Your task to perform on an android device: uninstall "Fetch Rewards" Image 0: 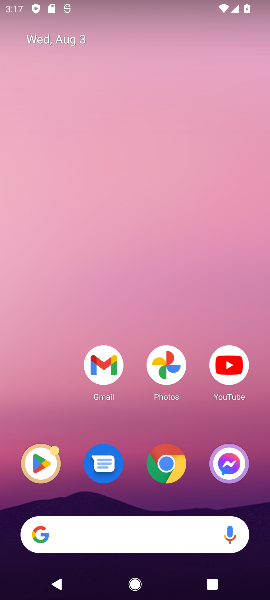
Step 0: drag from (192, 594) to (151, 109)
Your task to perform on an android device: uninstall "Fetch Rewards" Image 1: 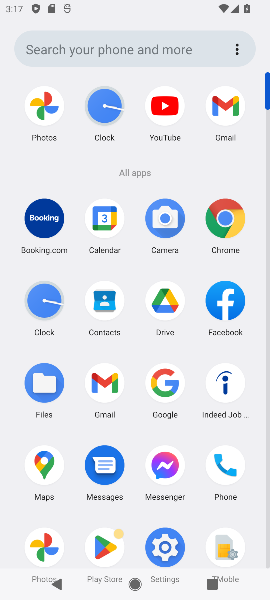
Step 1: click (105, 535)
Your task to perform on an android device: uninstall "Fetch Rewards" Image 2: 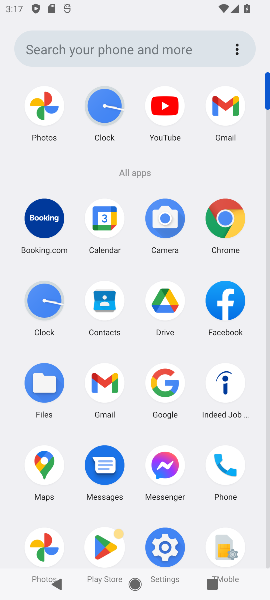
Step 2: click (105, 535)
Your task to perform on an android device: uninstall "Fetch Rewards" Image 3: 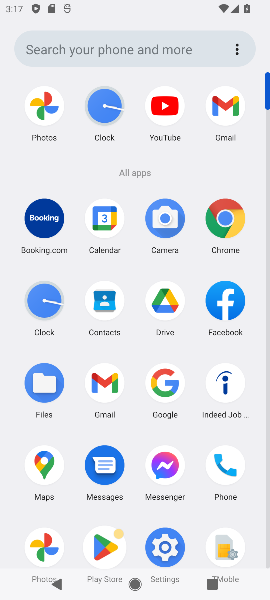
Step 3: click (105, 535)
Your task to perform on an android device: uninstall "Fetch Rewards" Image 4: 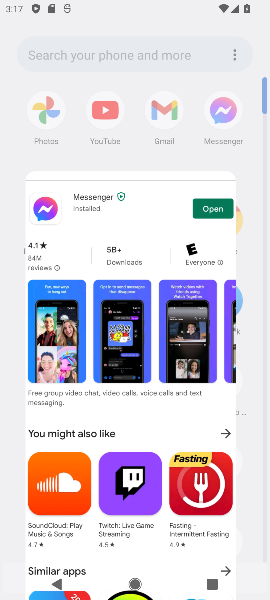
Step 4: click (105, 535)
Your task to perform on an android device: uninstall "Fetch Rewards" Image 5: 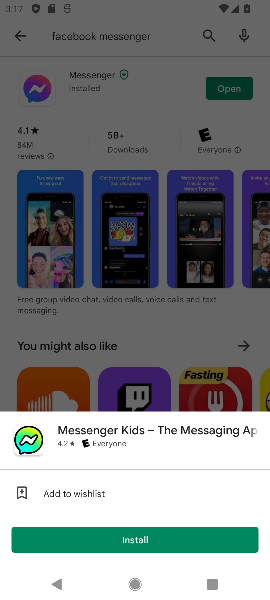
Step 5: click (206, 34)
Your task to perform on an android device: uninstall "Fetch Rewards" Image 6: 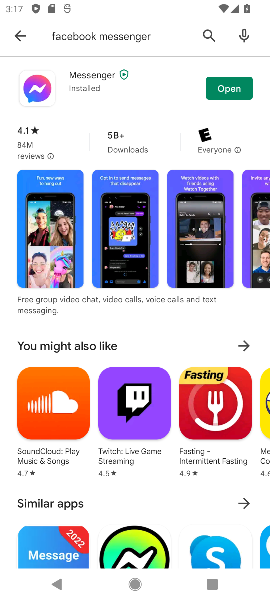
Step 6: click (210, 28)
Your task to perform on an android device: uninstall "Fetch Rewards" Image 7: 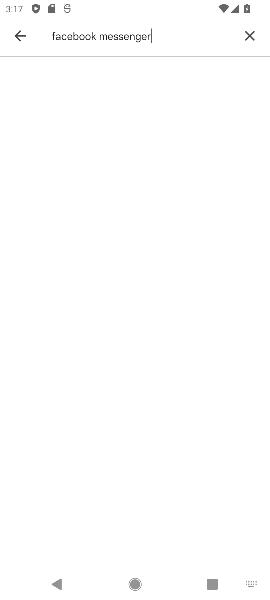
Step 7: click (201, 36)
Your task to perform on an android device: uninstall "Fetch Rewards" Image 8: 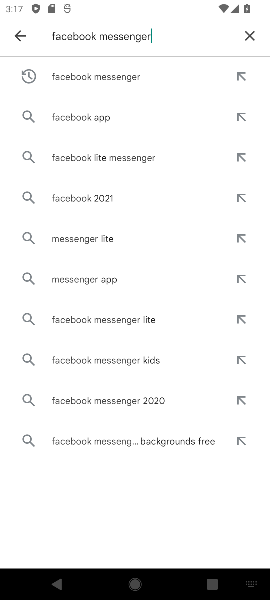
Step 8: click (201, 36)
Your task to perform on an android device: uninstall "Fetch Rewards" Image 9: 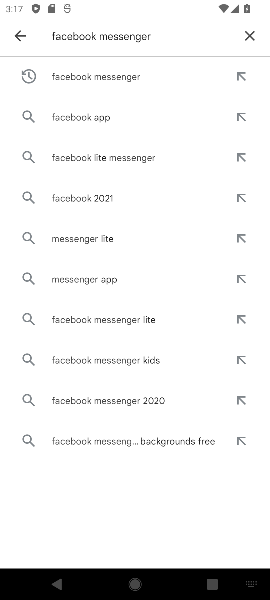
Step 9: click (201, 36)
Your task to perform on an android device: uninstall "Fetch Rewards" Image 10: 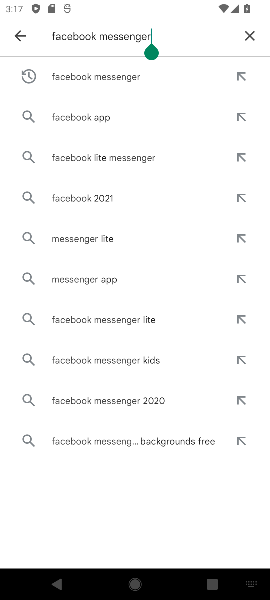
Step 10: click (241, 38)
Your task to perform on an android device: uninstall "Fetch Rewards" Image 11: 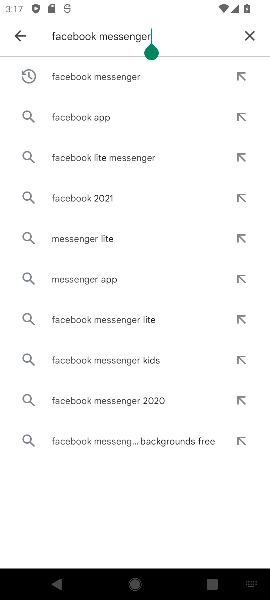
Step 11: click (241, 38)
Your task to perform on an android device: uninstall "Fetch Rewards" Image 12: 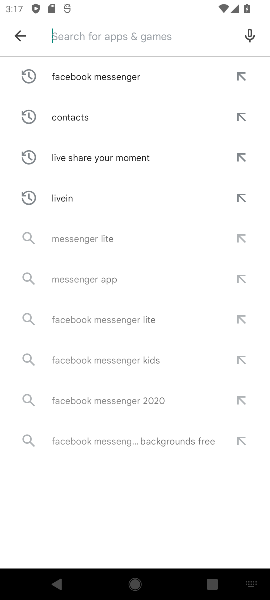
Step 12: click (241, 38)
Your task to perform on an android device: uninstall "Fetch Rewards" Image 13: 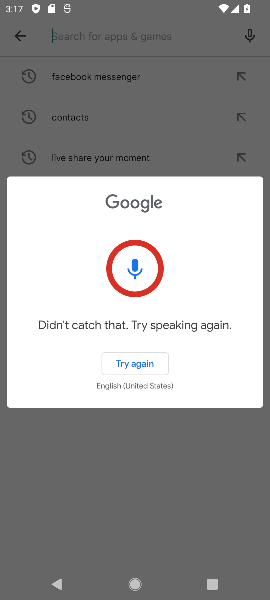
Step 13: type "fetch rewards"
Your task to perform on an android device: uninstall "Fetch Rewards" Image 14: 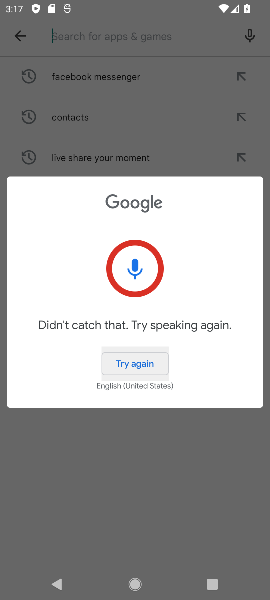
Step 14: click (186, 141)
Your task to perform on an android device: uninstall "Fetch Rewards" Image 15: 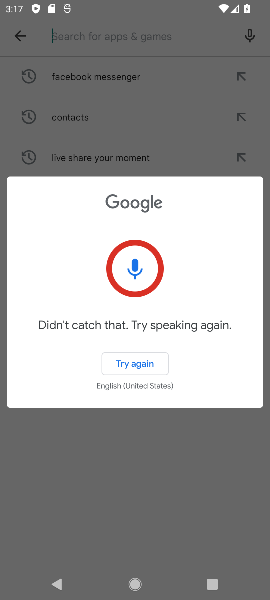
Step 15: click (184, 138)
Your task to perform on an android device: uninstall "Fetch Rewards" Image 16: 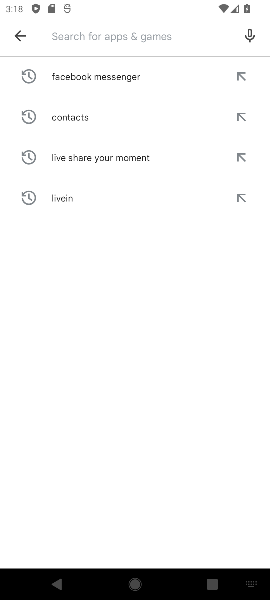
Step 16: type "fetch rewards"
Your task to perform on an android device: uninstall "Fetch Rewards" Image 17: 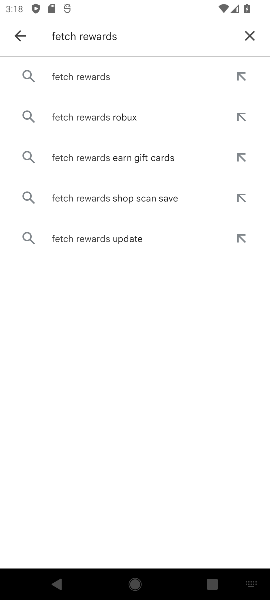
Step 17: click (97, 77)
Your task to perform on an android device: uninstall "Fetch Rewards" Image 18: 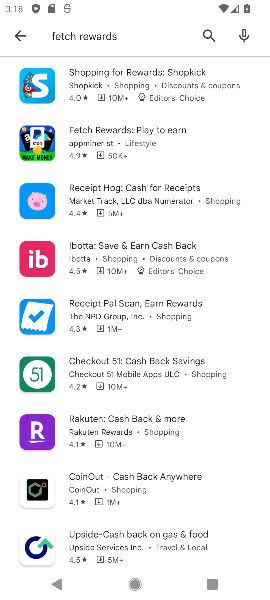
Step 18: task complete